Your task to perform on an android device: open app "TextNow: Call + Text Unlimited" Image 0: 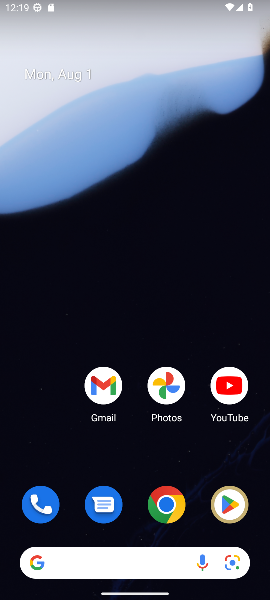
Step 0: drag from (141, 540) to (164, 33)
Your task to perform on an android device: open app "TextNow: Call + Text Unlimited" Image 1: 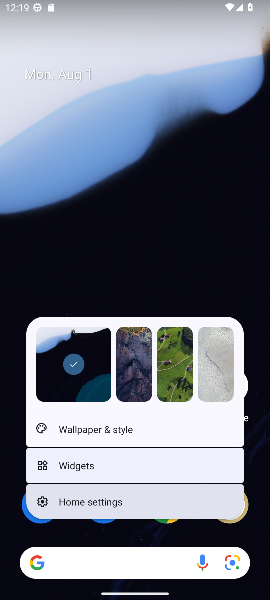
Step 1: click (254, 207)
Your task to perform on an android device: open app "TextNow: Call + Text Unlimited" Image 2: 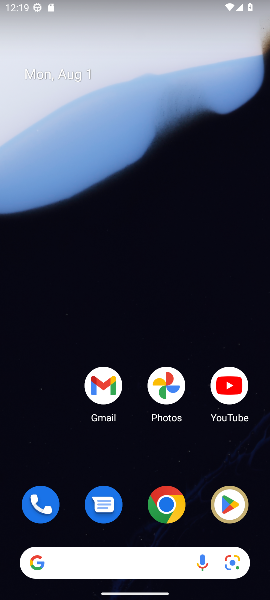
Step 2: drag from (127, 555) to (176, 0)
Your task to perform on an android device: open app "TextNow: Call + Text Unlimited" Image 3: 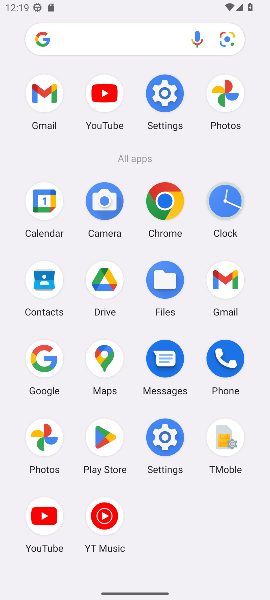
Step 3: click (110, 444)
Your task to perform on an android device: open app "TextNow: Call + Text Unlimited" Image 4: 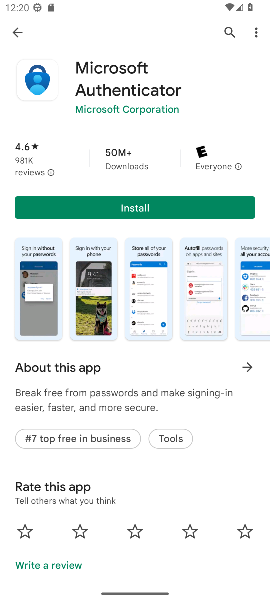
Step 4: click (225, 29)
Your task to perform on an android device: open app "TextNow: Call + Text Unlimited" Image 5: 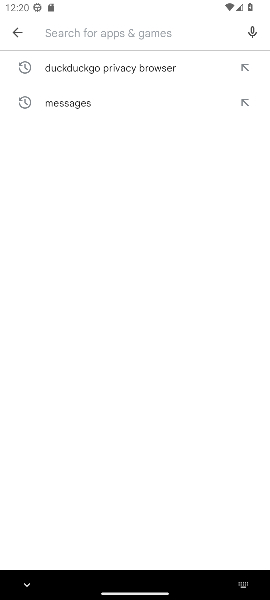
Step 5: type "textnow: call + text unlimited"
Your task to perform on an android device: open app "TextNow: Call + Text Unlimited" Image 6: 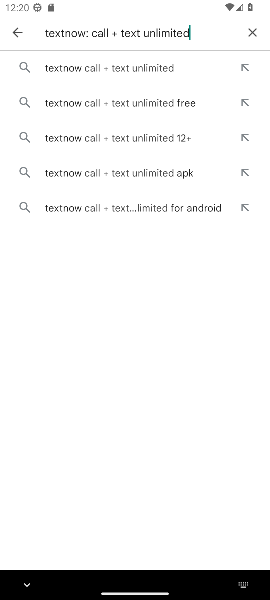
Step 6: click (160, 65)
Your task to perform on an android device: open app "TextNow: Call + Text Unlimited" Image 7: 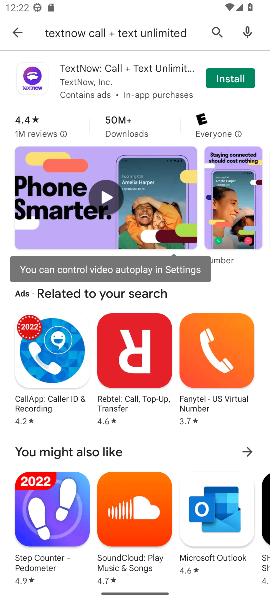
Step 7: task complete